Your task to perform on an android device: Open wifi settings Image 0: 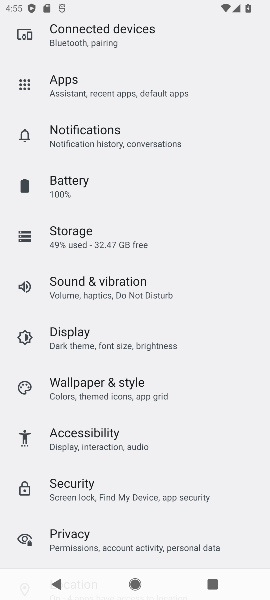
Step 0: drag from (151, 217) to (147, 324)
Your task to perform on an android device: Open wifi settings Image 1: 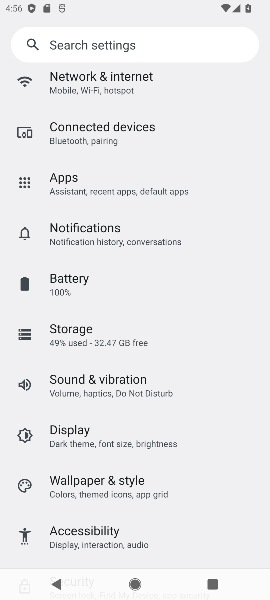
Step 1: press home button
Your task to perform on an android device: Open wifi settings Image 2: 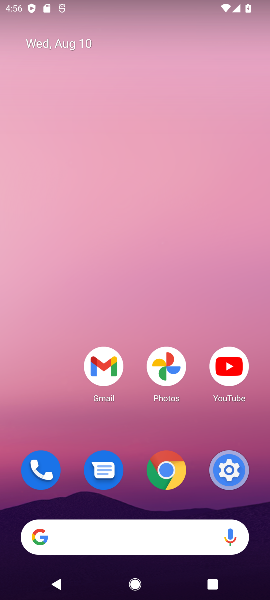
Step 2: drag from (241, 11) to (193, 572)
Your task to perform on an android device: Open wifi settings Image 3: 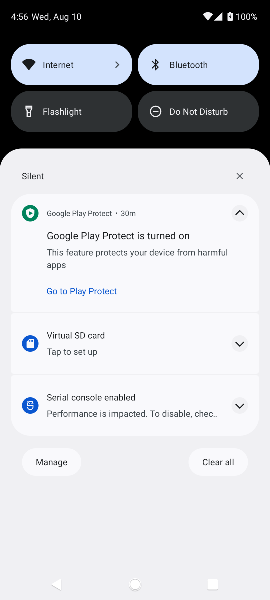
Step 3: drag from (134, 138) to (123, 437)
Your task to perform on an android device: Open wifi settings Image 4: 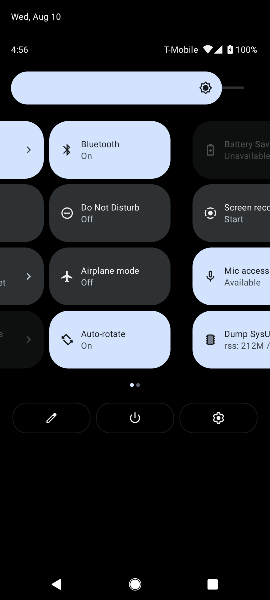
Step 4: click (82, 166)
Your task to perform on an android device: Open wifi settings Image 5: 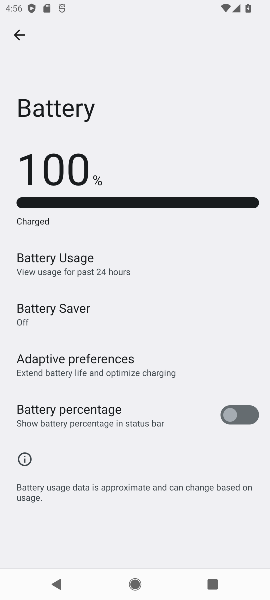
Step 5: press back button
Your task to perform on an android device: Open wifi settings Image 6: 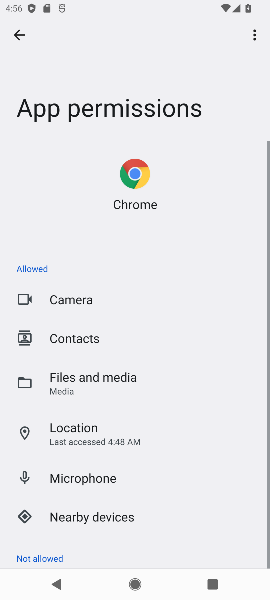
Step 6: press back button
Your task to perform on an android device: Open wifi settings Image 7: 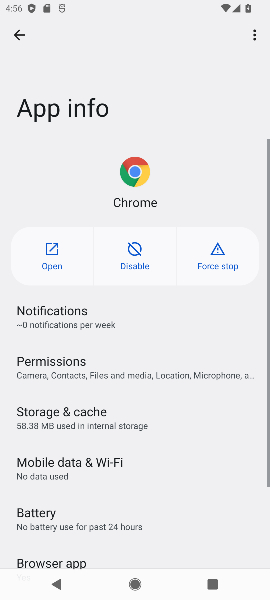
Step 7: press back button
Your task to perform on an android device: Open wifi settings Image 8: 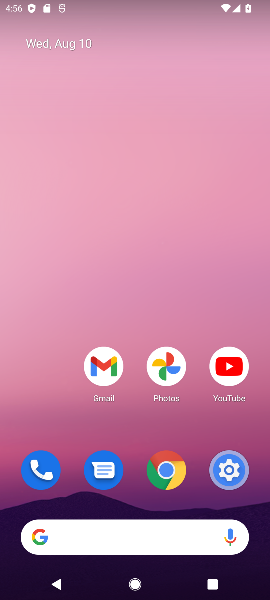
Step 8: press back button
Your task to perform on an android device: Open wifi settings Image 9: 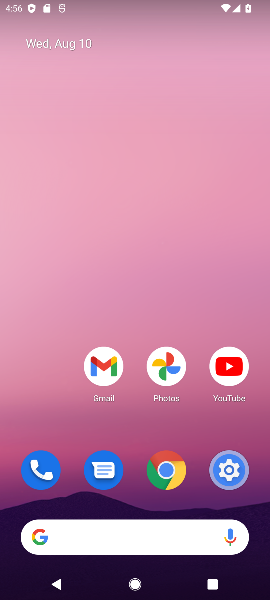
Step 9: drag from (233, 2) to (0, 147)
Your task to perform on an android device: Open wifi settings Image 10: 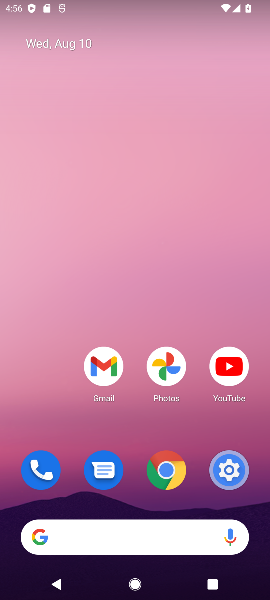
Step 10: drag from (114, 1) to (4, 56)
Your task to perform on an android device: Open wifi settings Image 11: 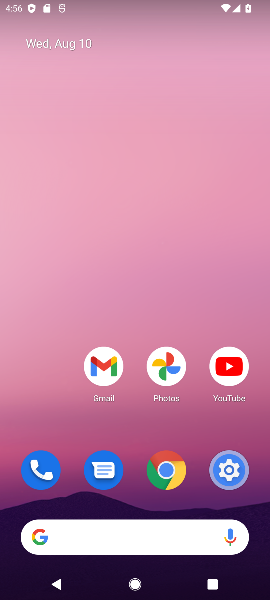
Step 11: click (55, 69)
Your task to perform on an android device: Open wifi settings Image 12: 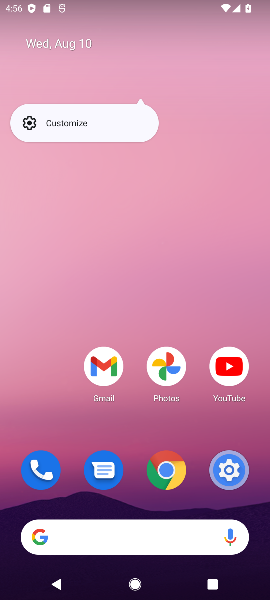
Step 12: drag from (101, 6) to (39, 588)
Your task to perform on an android device: Open wifi settings Image 13: 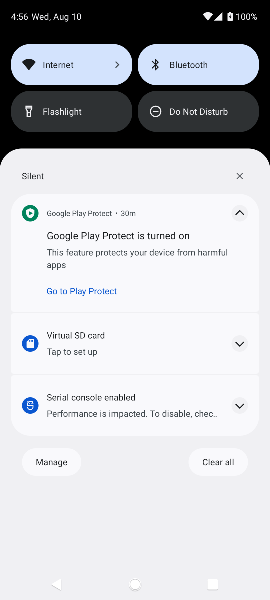
Step 13: click (99, 57)
Your task to perform on an android device: Open wifi settings Image 14: 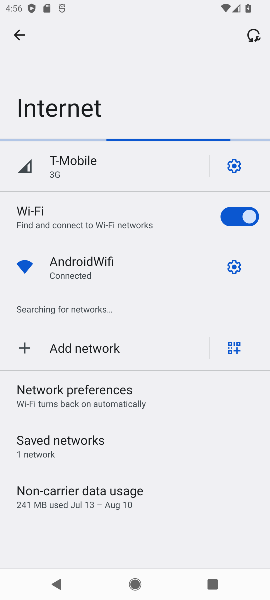
Step 14: task complete